Your task to perform on an android device: empty trash in google photos Image 0: 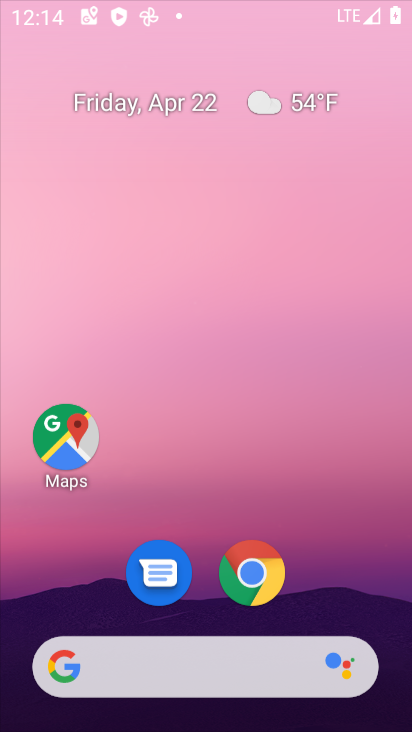
Step 0: click (344, 66)
Your task to perform on an android device: empty trash in google photos Image 1: 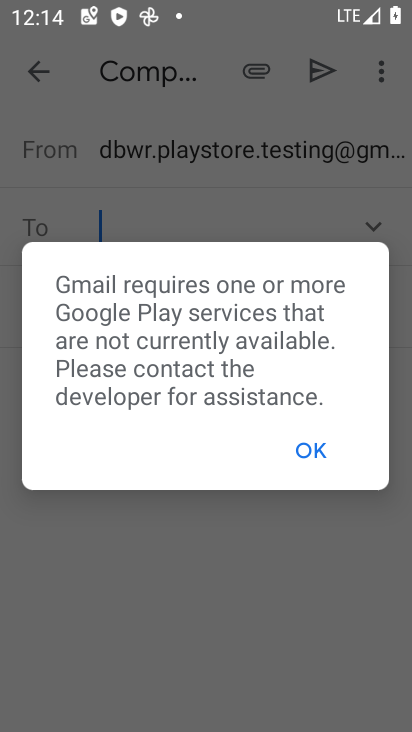
Step 1: press home button
Your task to perform on an android device: empty trash in google photos Image 2: 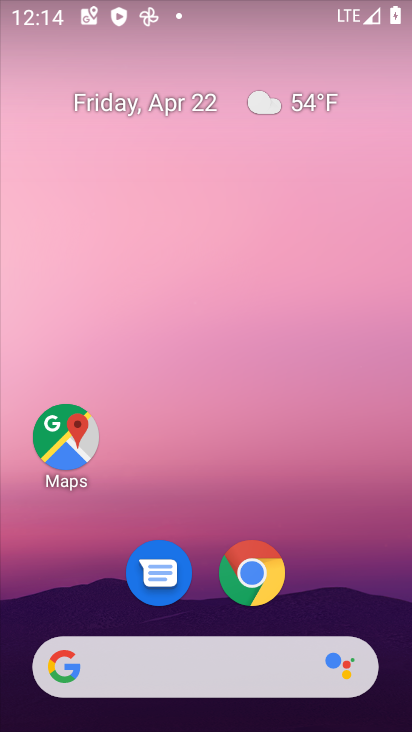
Step 2: drag from (339, 586) to (355, 97)
Your task to perform on an android device: empty trash in google photos Image 3: 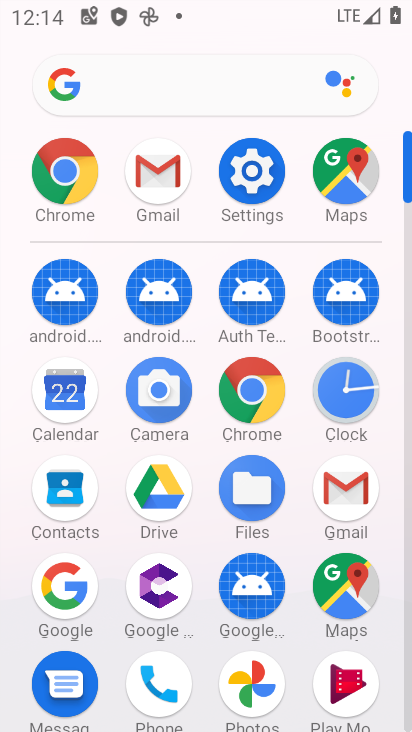
Step 3: click (257, 674)
Your task to perform on an android device: empty trash in google photos Image 4: 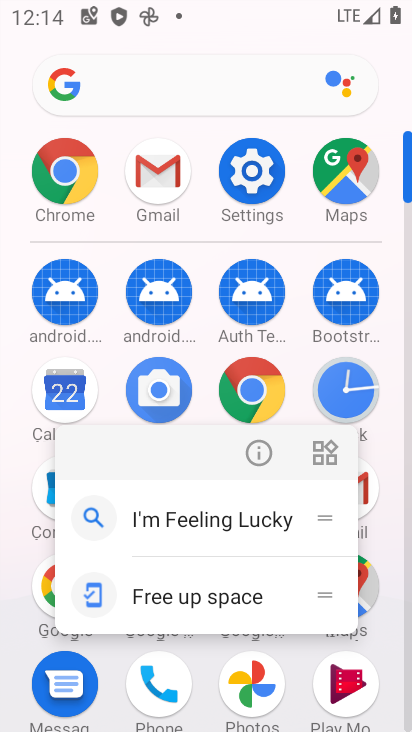
Step 4: click (257, 674)
Your task to perform on an android device: empty trash in google photos Image 5: 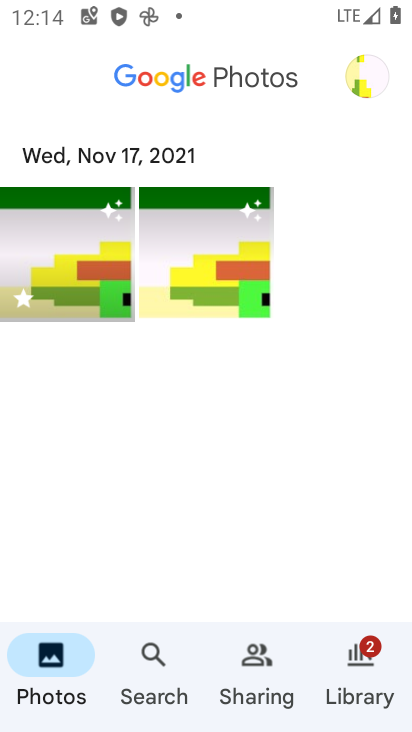
Step 5: click (368, 65)
Your task to perform on an android device: empty trash in google photos Image 6: 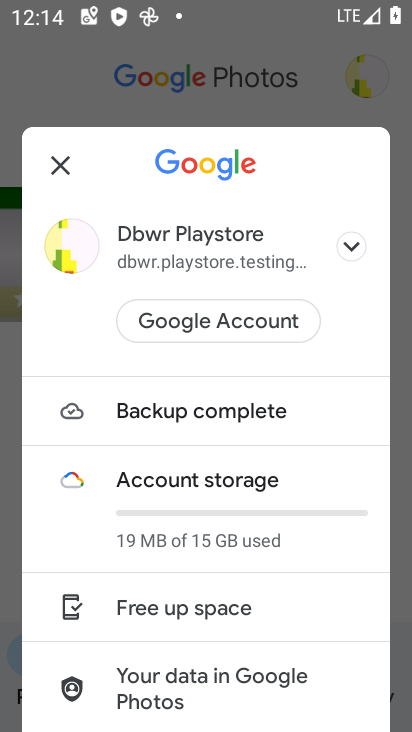
Step 6: click (53, 161)
Your task to perform on an android device: empty trash in google photos Image 7: 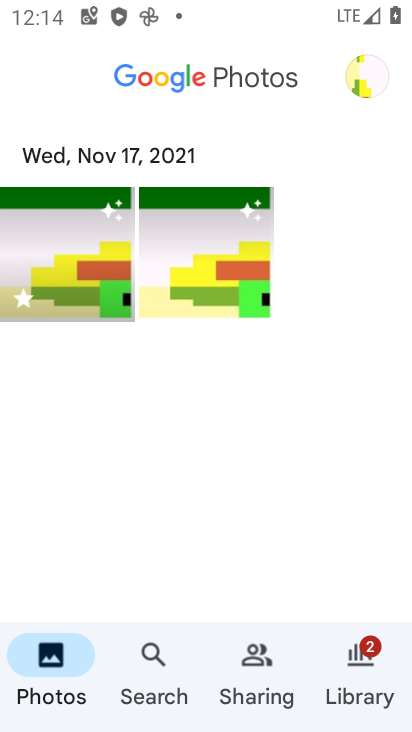
Step 7: click (353, 676)
Your task to perform on an android device: empty trash in google photos Image 8: 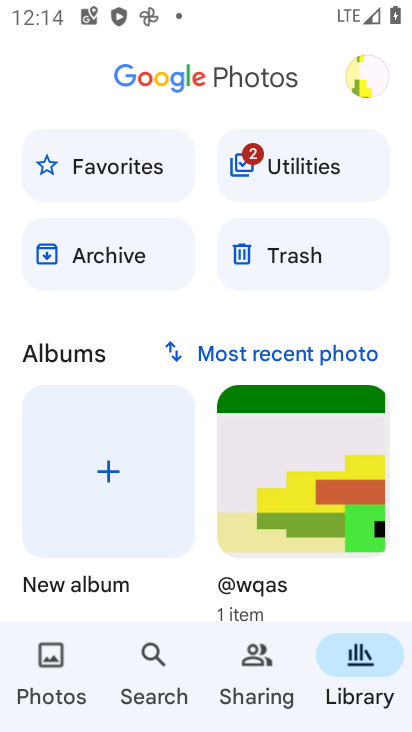
Step 8: click (285, 256)
Your task to perform on an android device: empty trash in google photos Image 9: 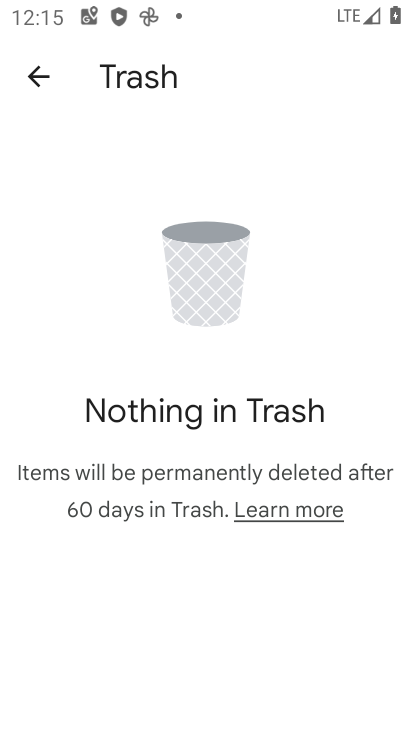
Step 9: task complete